Your task to perform on an android device: set the stopwatch Image 0: 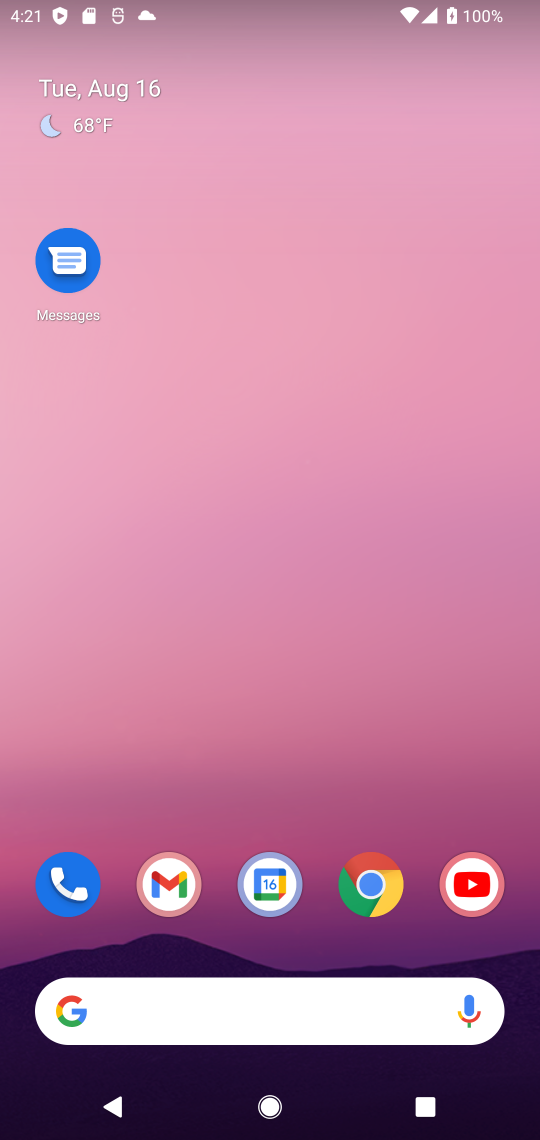
Step 0: drag from (38, 1066) to (215, 521)
Your task to perform on an android device: set the stopwatch Image 1: 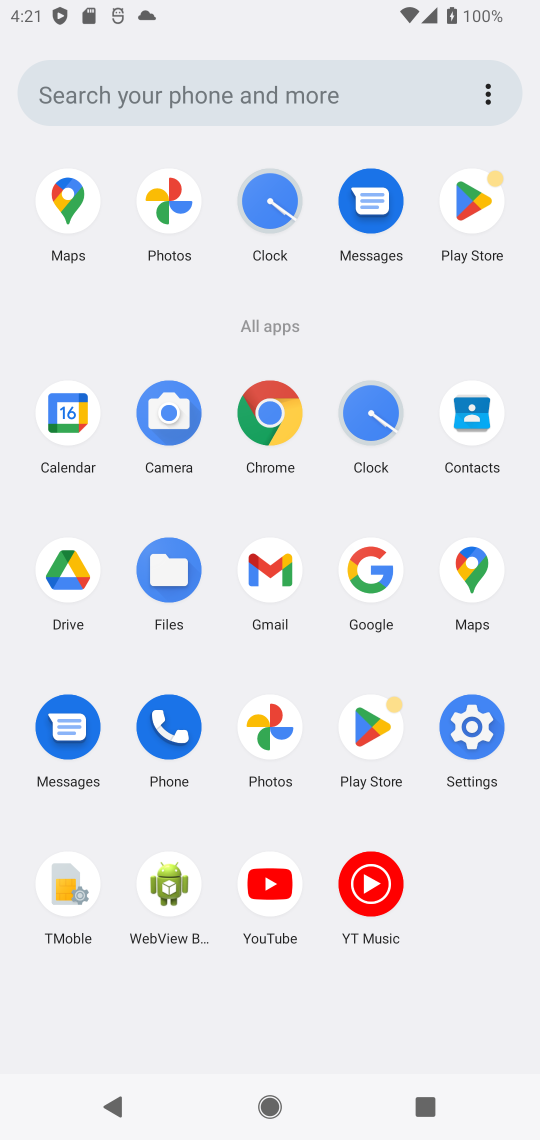
Step 1: click (362, 419)
Your task to perform on an android device: set the stopwatch Image 2: 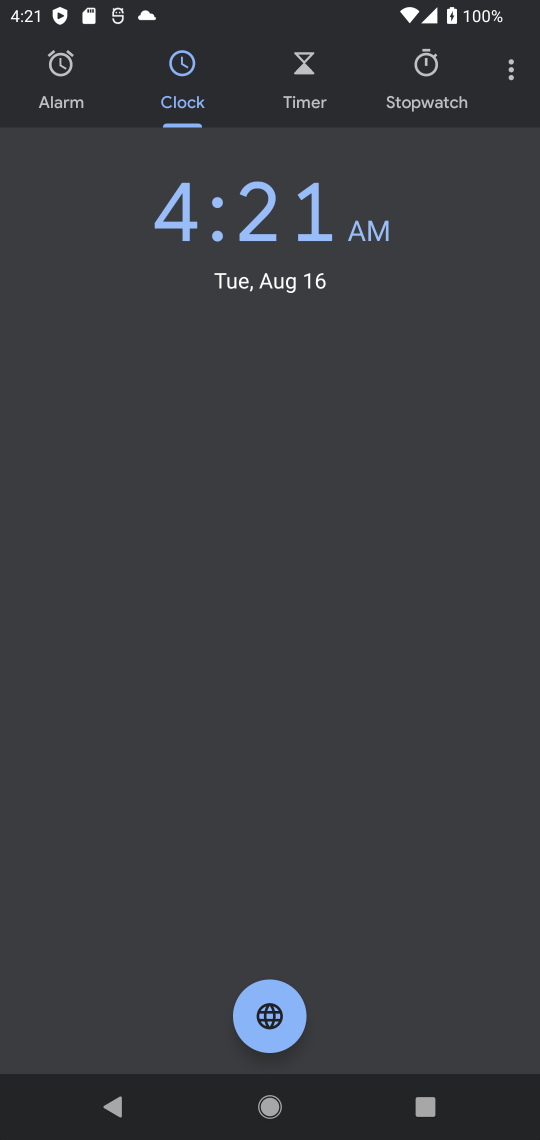
Step 2: click (419, 71)
Your task to perform on an android device: set the stopwatch Image 3: 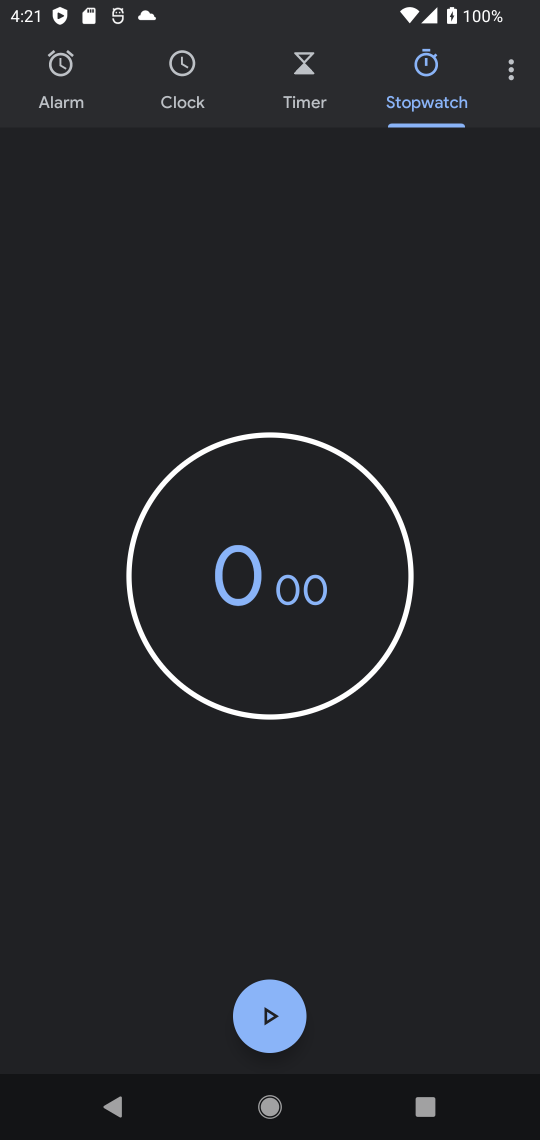
Step 3: click (286, 601)
Your task to perform on an android device: set the stopwatch Image 4: 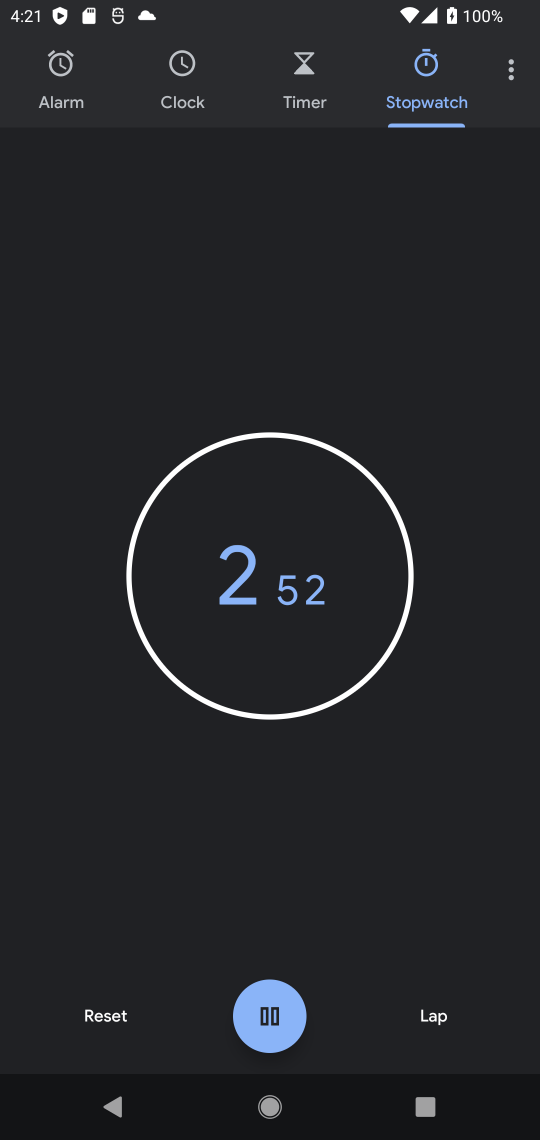
Step 4: click (269, 1029)
Your task to perform on an android device: set the stopwatch Image 5: 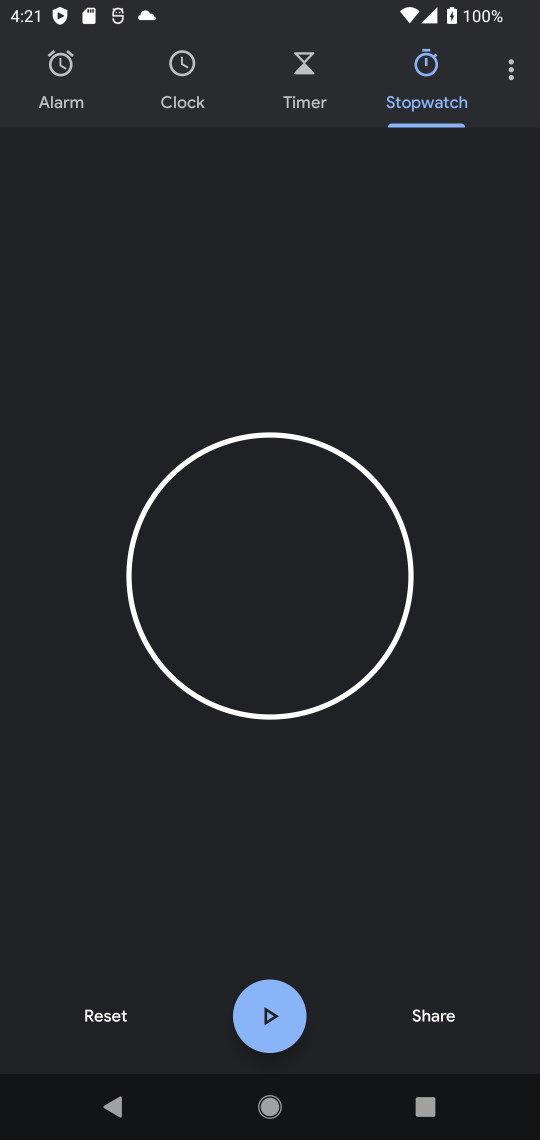
Step 5: task complete